Your task to perform on an android device: Do I have any events this weekend? Image 0: 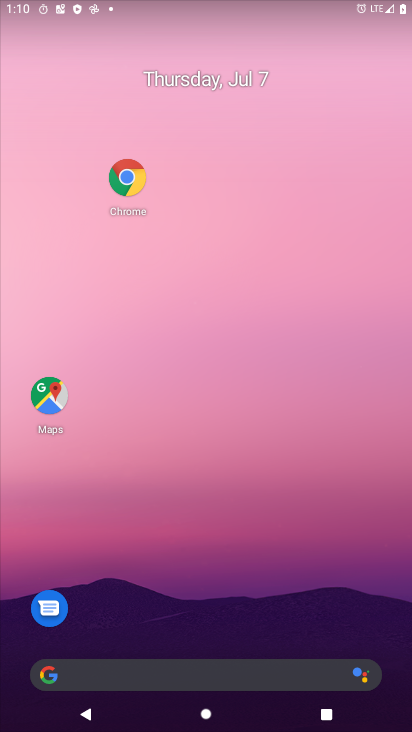
Step 0: drag from (105, 665) to (175, 220)
Your task to perform on an android device: Do I have any events this weekend? Image 1: 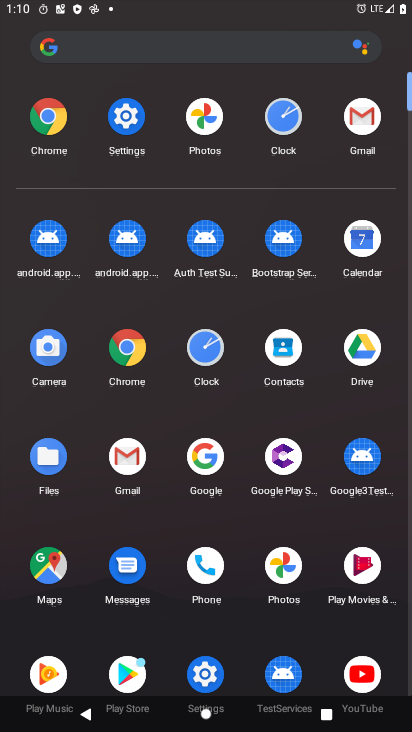
Step 1: click (362, 245)
Your task to perform on an android device: Do I have any events this weekend? Image 2: 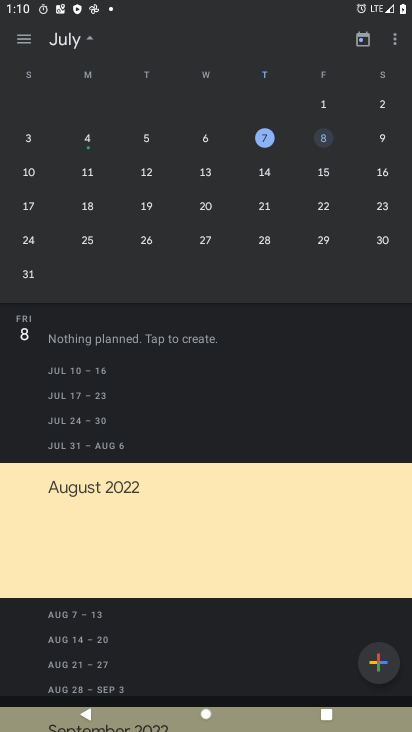
Step 2: click (382, 141)
Your task to perform on an android device: Do I have any events this weekend? Image 3: 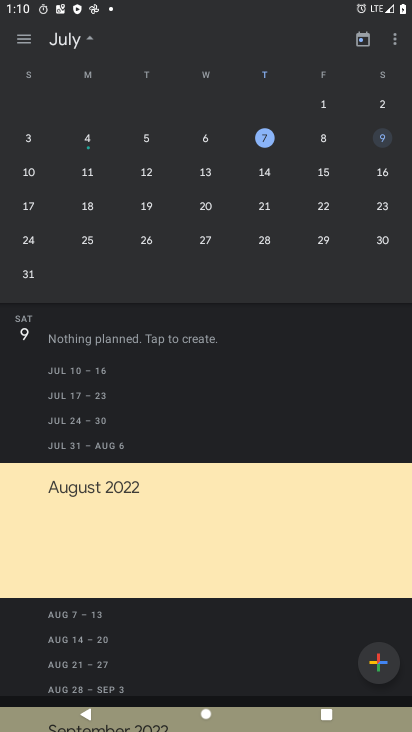
Step 3: click (383, 139)
Your task to perform on an android device: Do I have any events this weekend? Image 4: 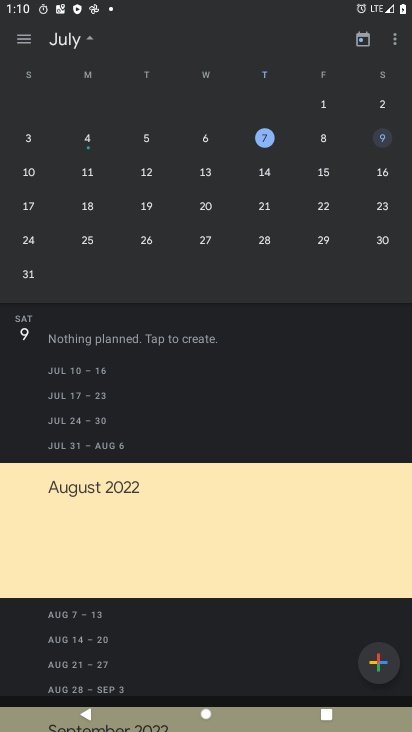
Step 4: task complete